Your task to perform on an android device: find photos in the google photos app Image 0: 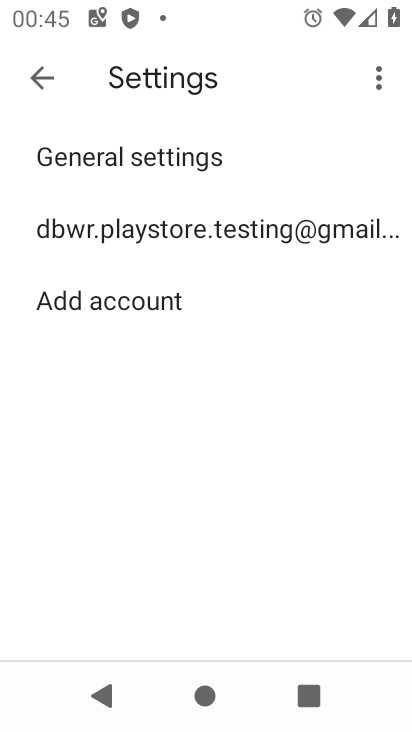
Step 0: press home button
Your task to perform on an android device: find photos in the google photos app Image 1: 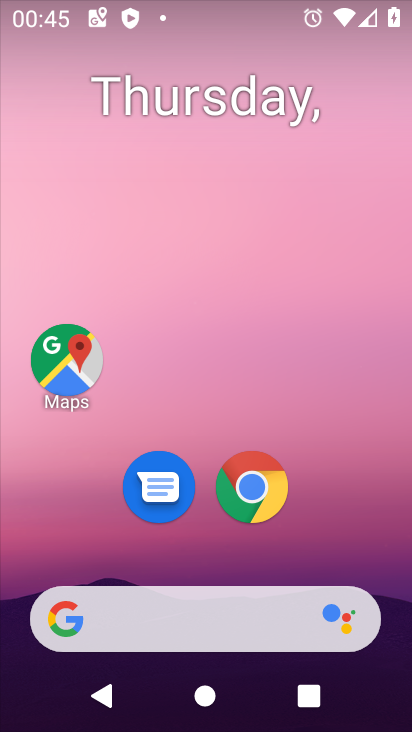
Step 1: drag from (349, 581) to (365, 0)
Your task to perform on an android device: find photos in the google photos app Image 2: 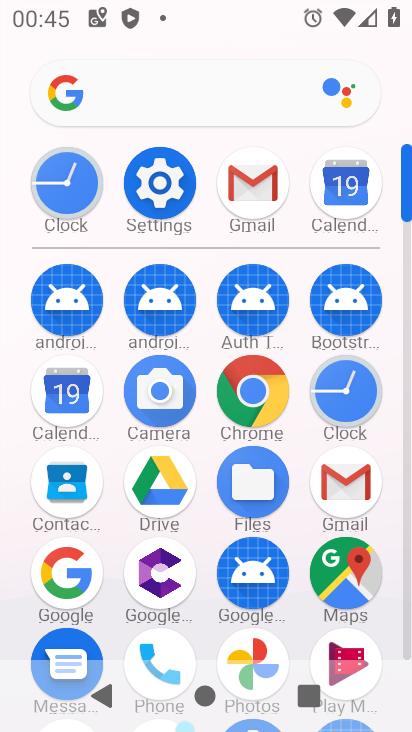
Step 2: click (403, 512)
Your task to perform on an android device: find photos in the google photos app Image 3: 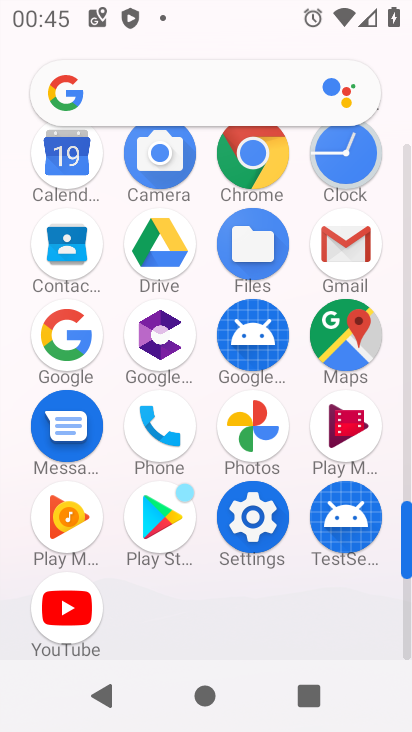
Step 3: click (263, 433)
Your task to perform on an android device: find photos in the google photos app Image 4: 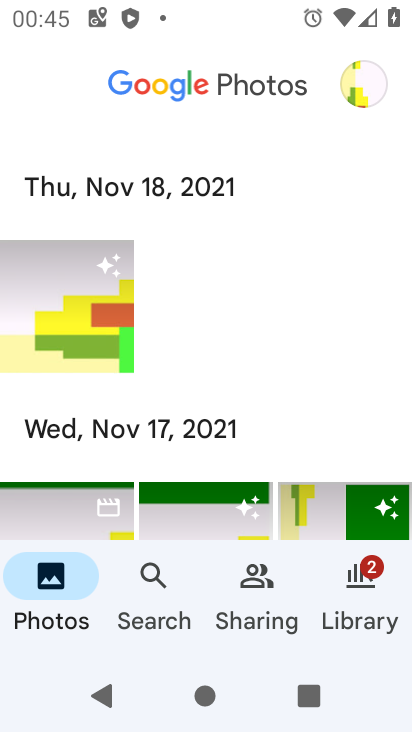
Step 4: click (38, 618)
Your task to perform on an android device: find photos in the google photos app Image 5: 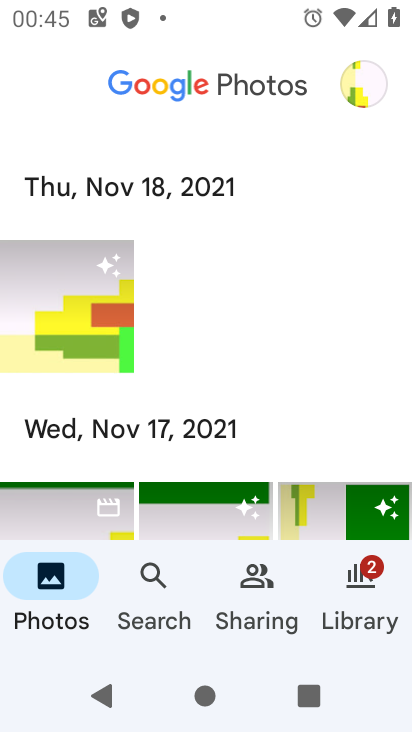
Step 5: task complete